Your task to perform on an android device: Go to Reddit.com Image 0: 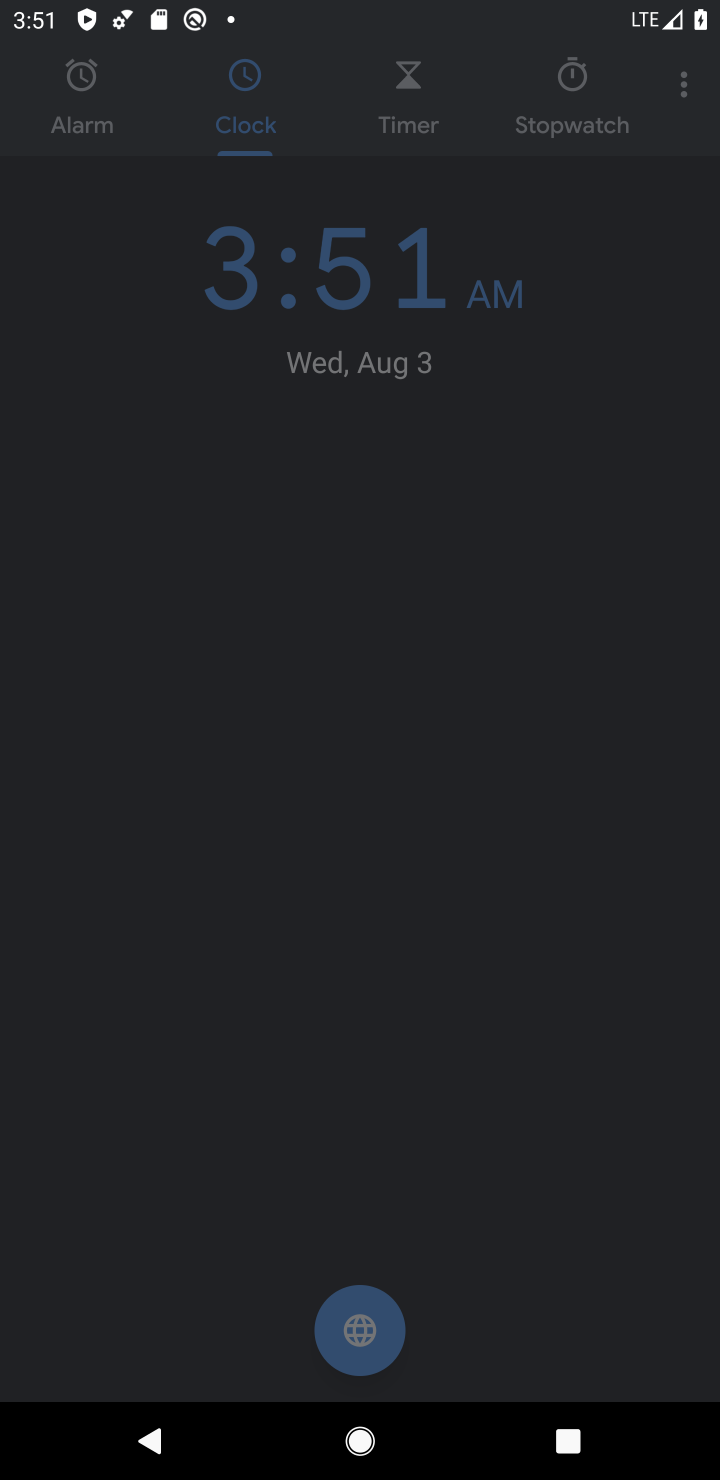
Step 0: press back button
Your task to perform on an android device: Go to Reddit.com Image 1: 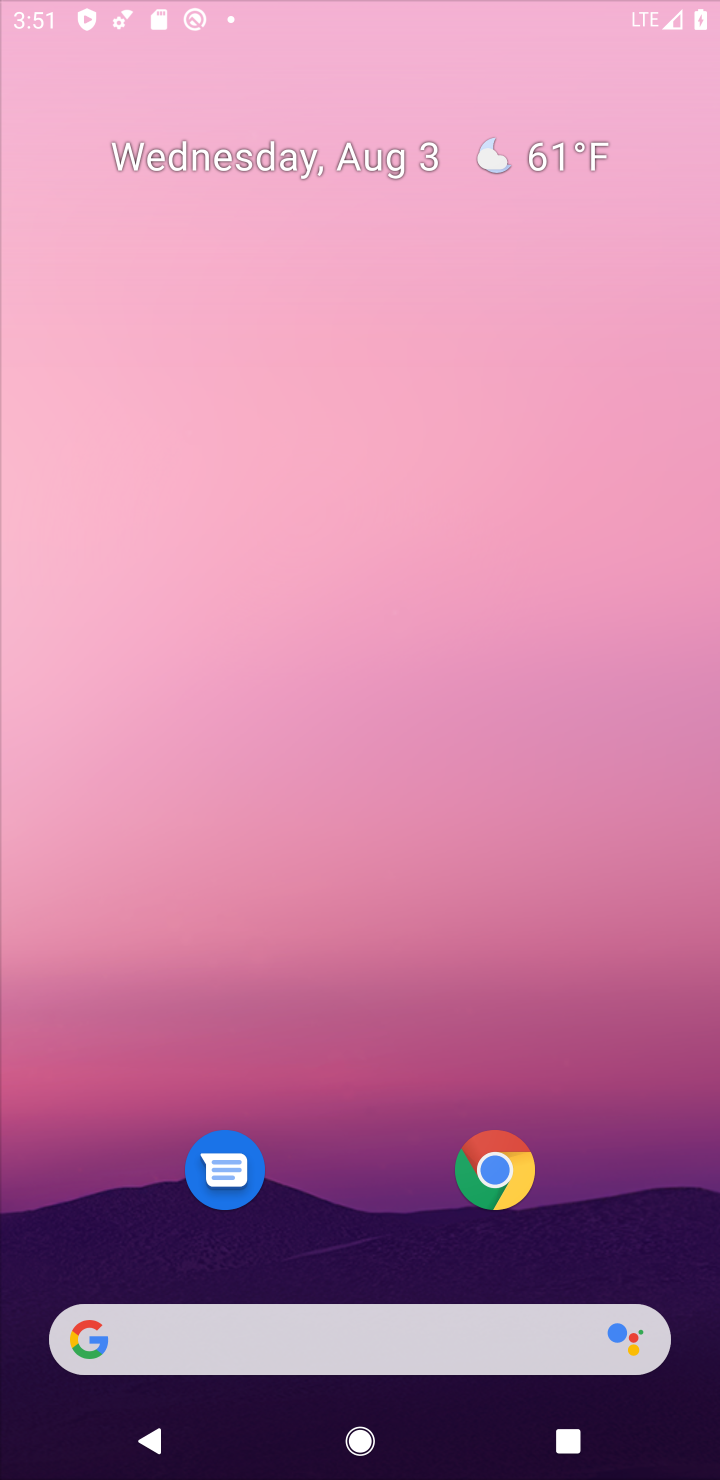
Step 1: press home button
Your task to perform on an android device: Go to Reddit.com Image 2: 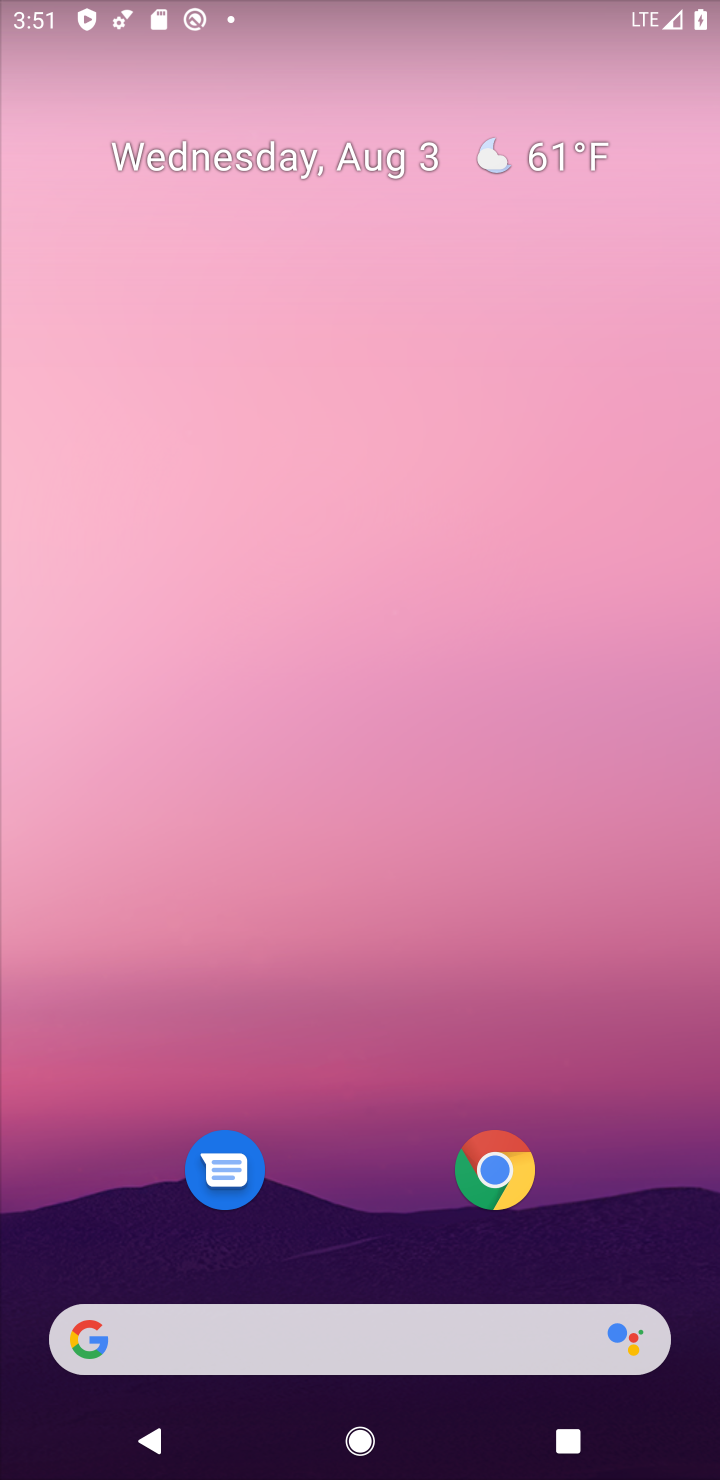
Step 2: click (503, 1160)
Your task to perform on an android device: Go to Reddit.com Image 3: 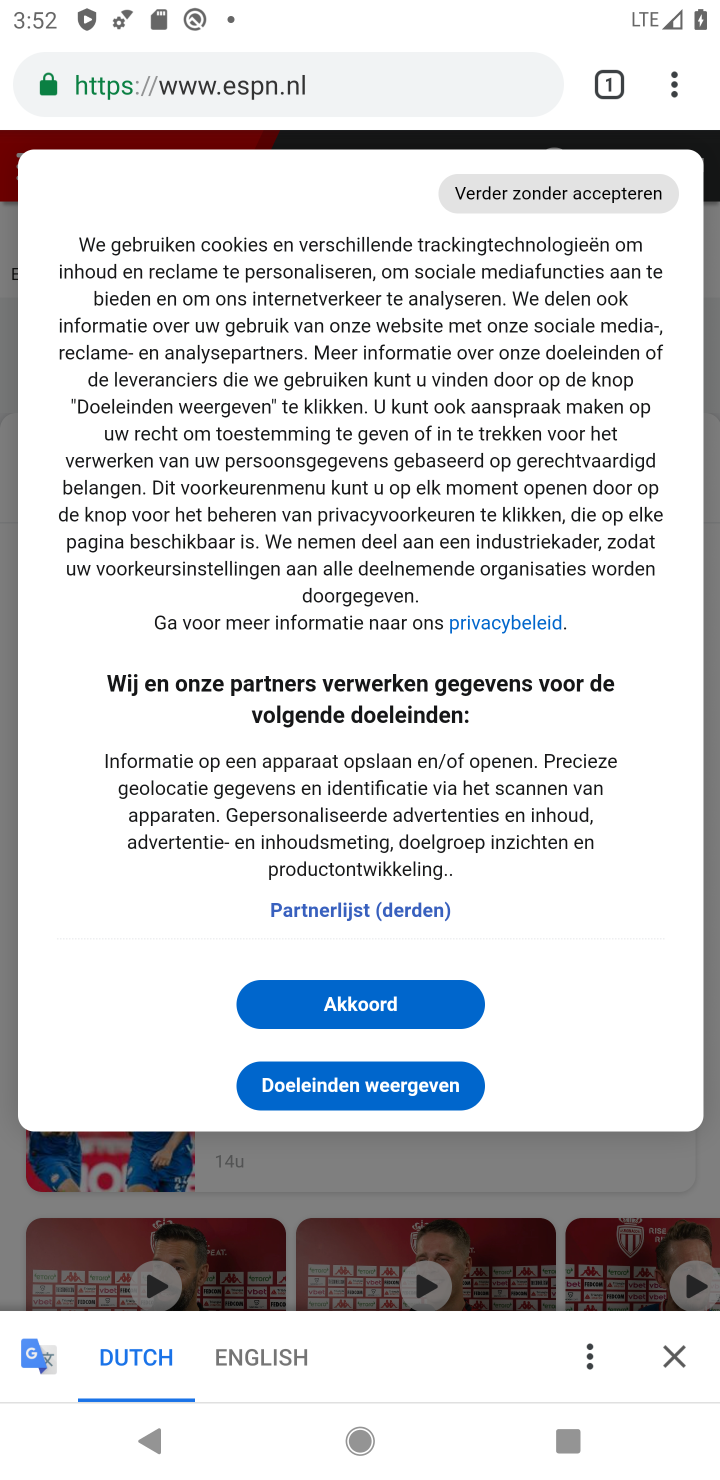
Step 3: click (246, 64)
Your task to perform on an android device: Go to Reddit.com Image 4: 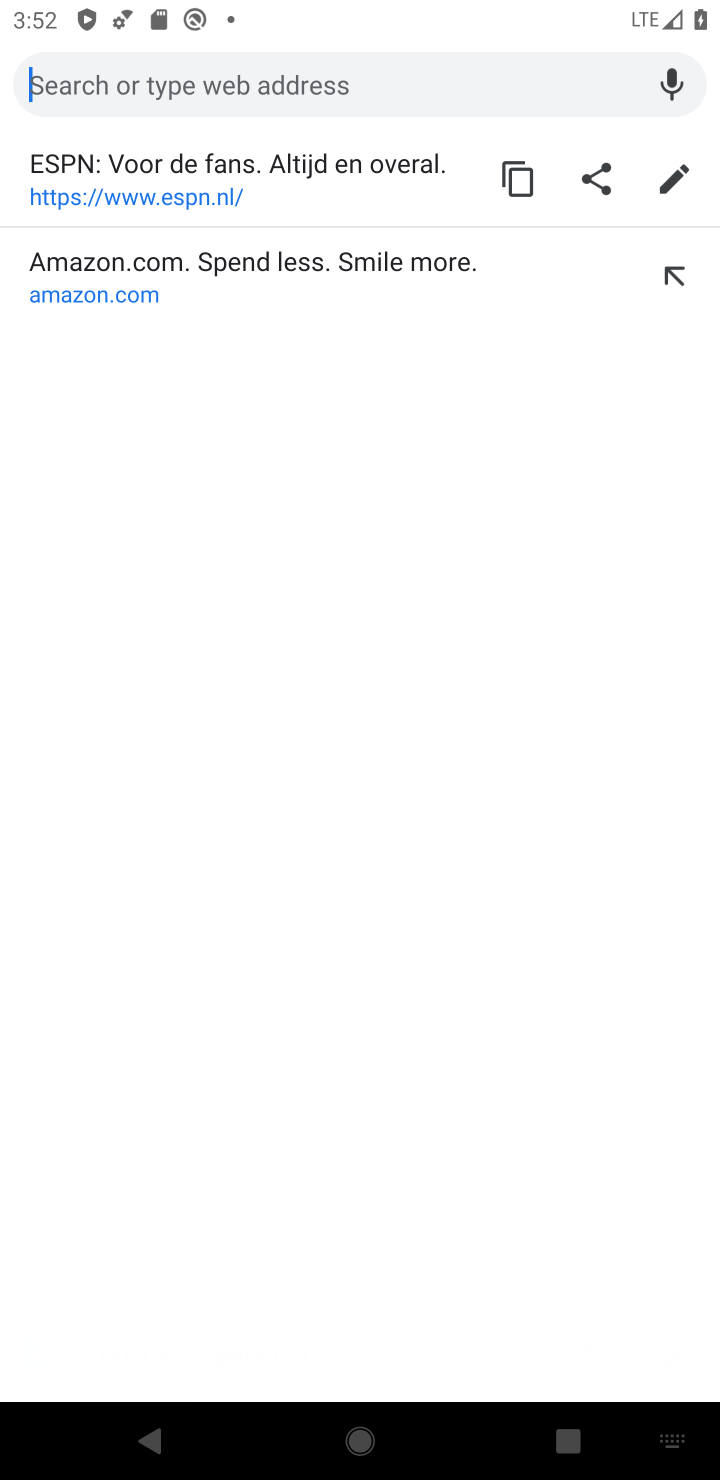
Step 4: type "www.reddit.com"
Your task to perform on an android device: Go to Reddit.com Image 5: 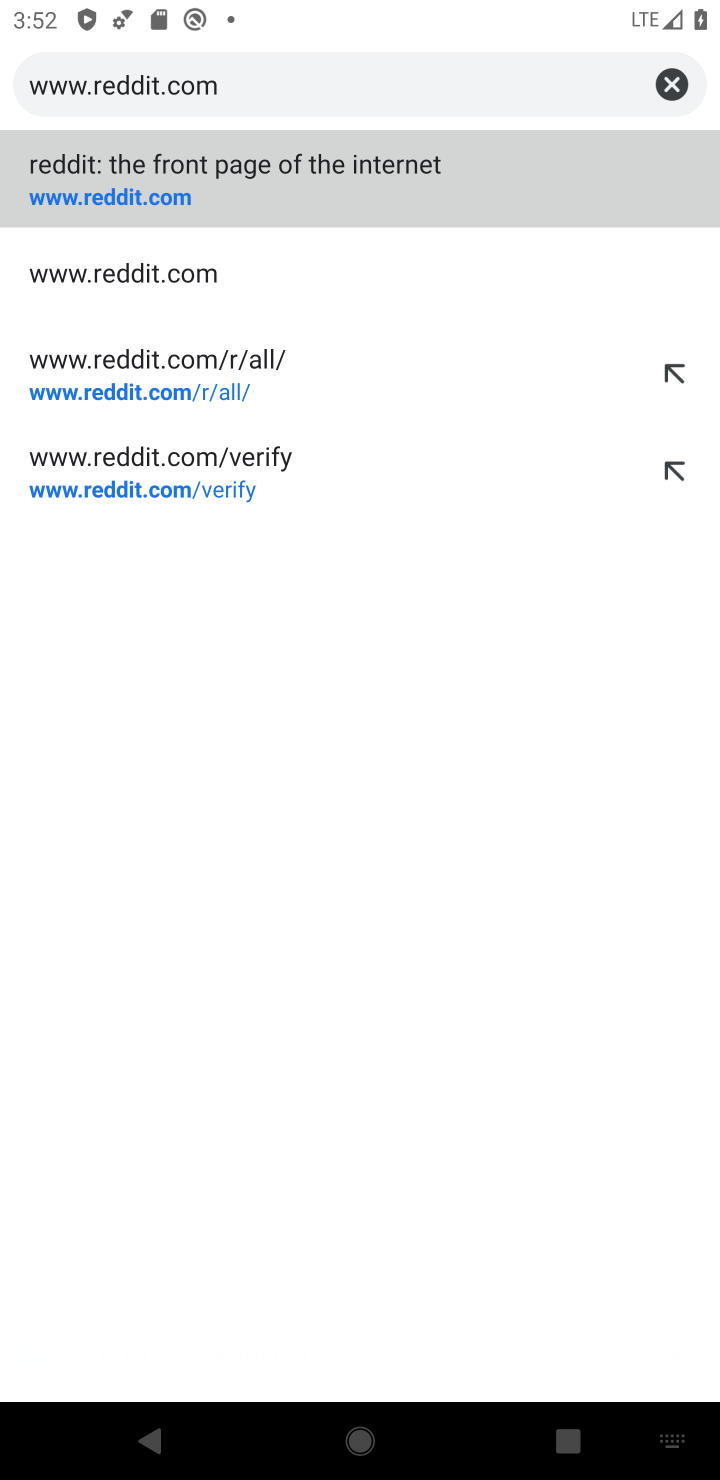
Step 5: click (64, 179)
Your task to perform on an android device: Go to Reddit.com Image 6: 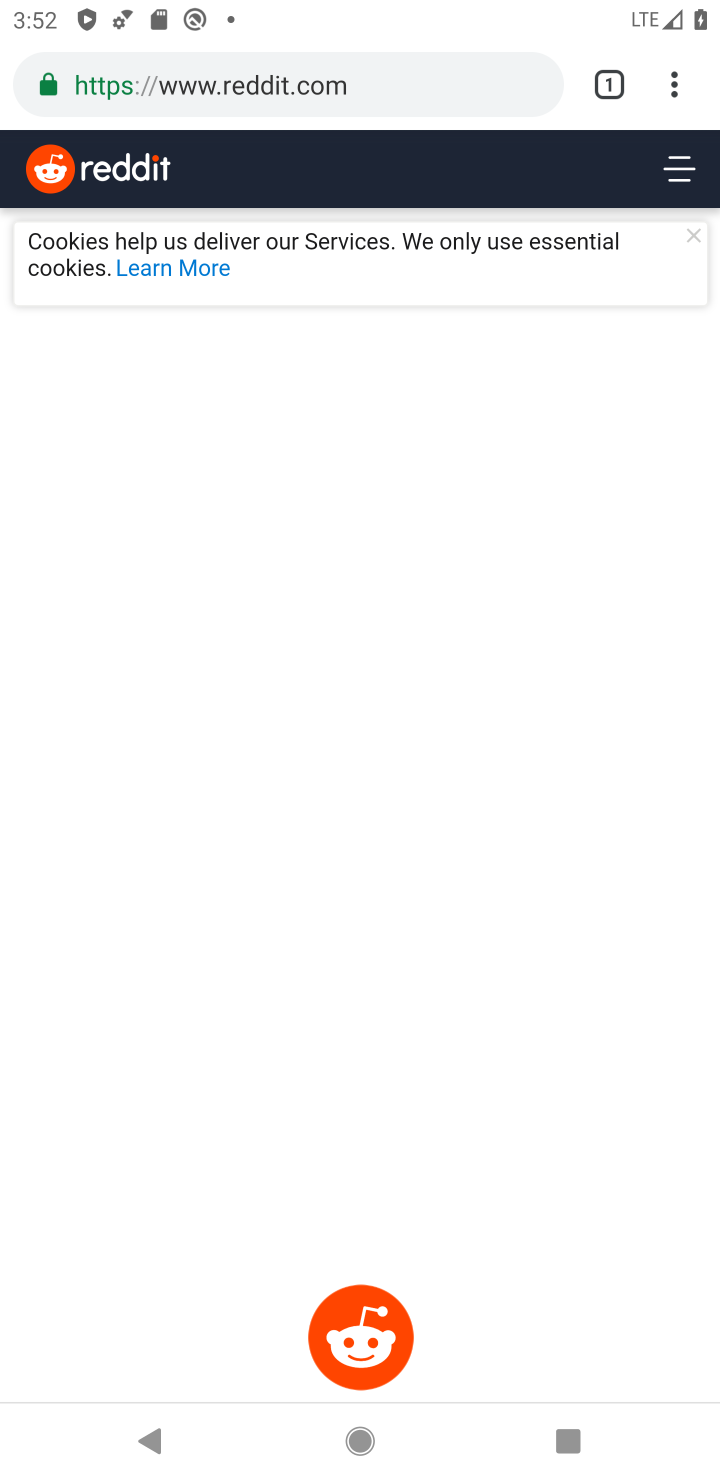
Step 6: task complete